Your task to perform on an android device: Open the web browser Image 0: 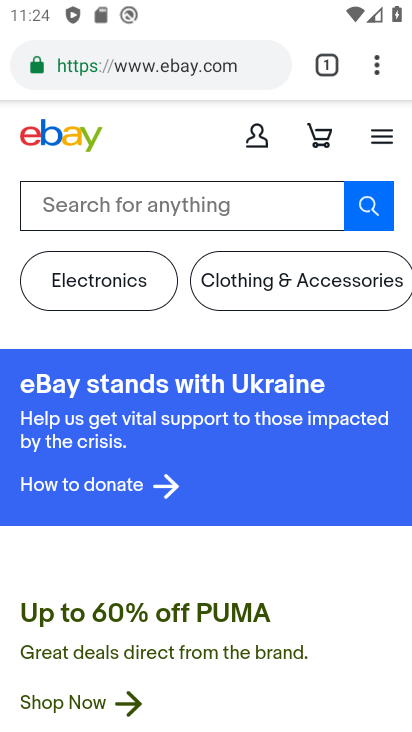
Step 0: press home button
Your task to perform on an android device: Open the web browser Image 1: 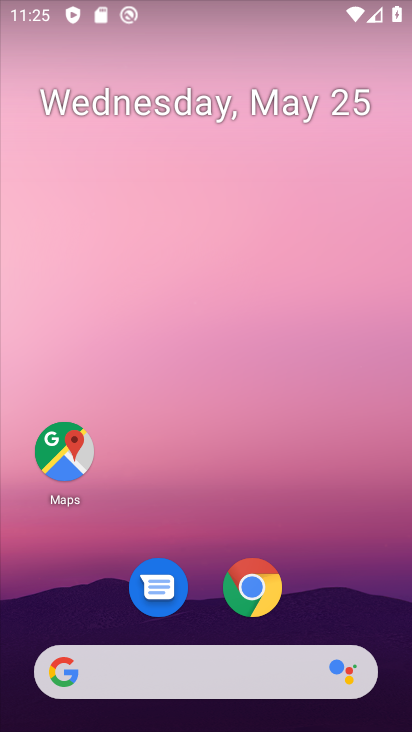
Step 1: drag from (278, 716) to (254, 294)
Your task to perform on an android device: Open the web browser Image 2: 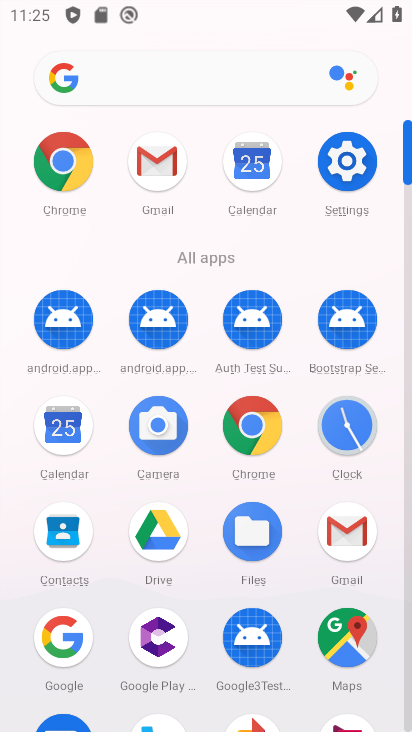
Step 2: click (73, 172)
Your task to perform on an android device: Open the web browser Image 3: 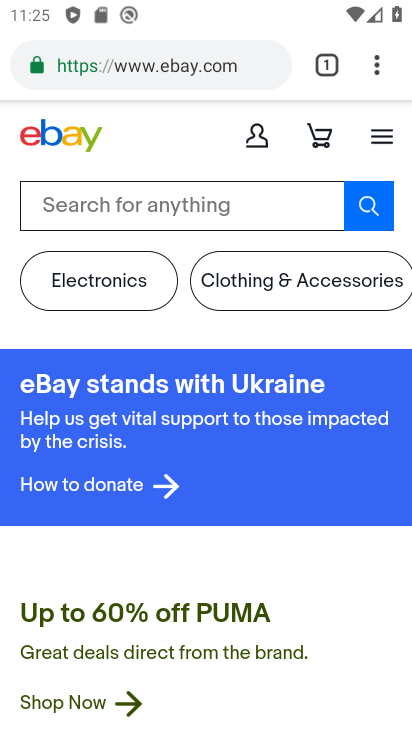
Step 3: click (322, 72)
Your task to perform on an android device: Open the web browser Image 4: 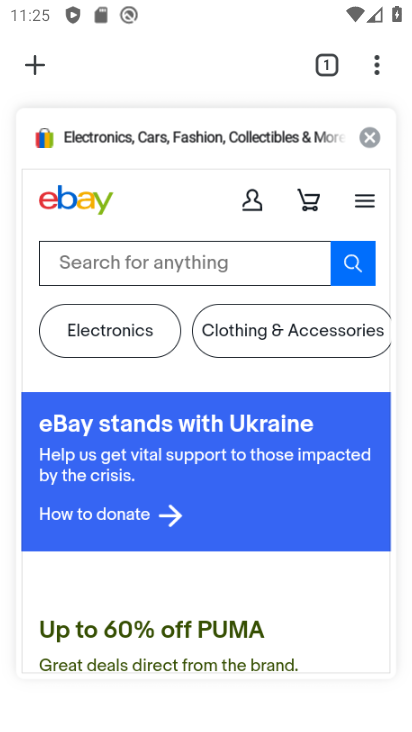
Step 4: click (32, 55)
Your task to perform on an android device: Open the web browser Image 5: 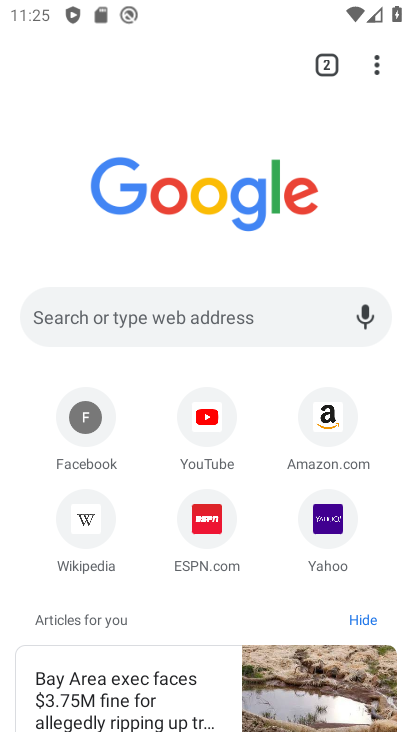
Step 5: click (157, 312)
Your task to perform on an android device: Open the web browser Image 6: 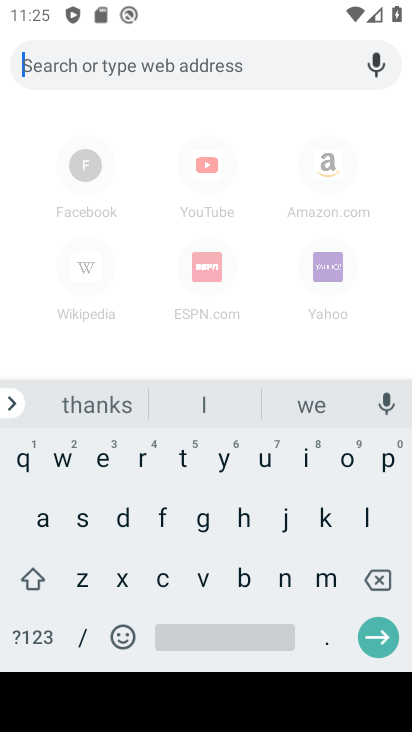
Step 6: task complete